Your task to perform on an android device: Go to Android settings Image 0: 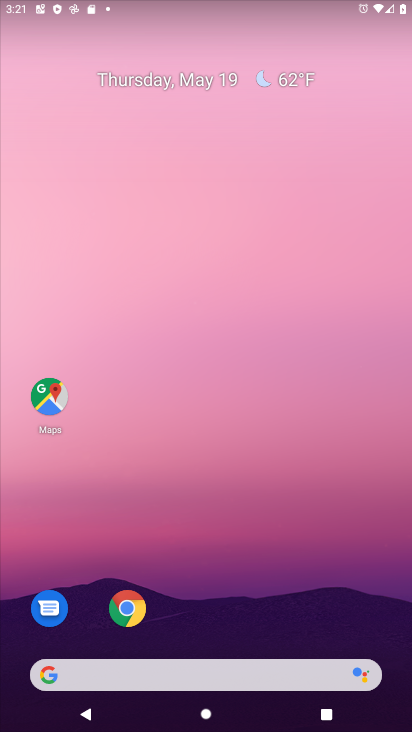
Step 0: drag from (329, 630) to (267, 178)
Your task to perform on an android device: Go to Android settings Image 1: 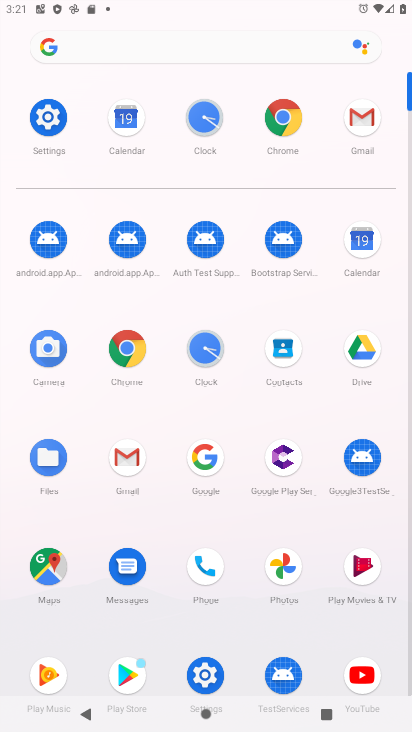
Step 1: click (25, 134)
Your task to perform on an android device: Go to Android settings Image 2: 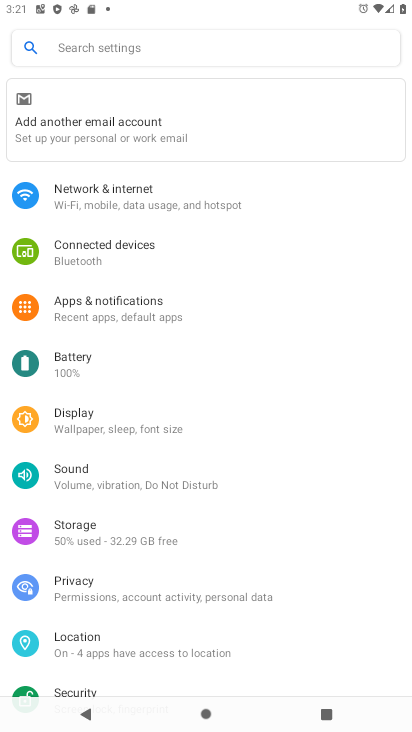
Step 2: task complete